Your task to perform on an android device: remove spam from my inbox in the gmail app Image 0: 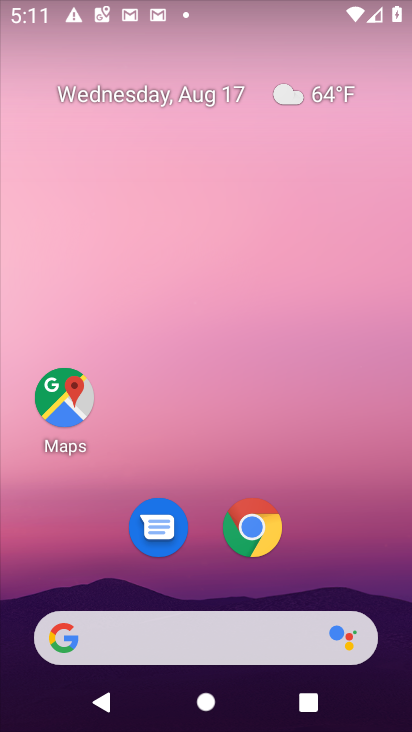
Step 0: drag from (185, 612) to (122, 154)
Your task to perform on an android device: remove spam from my inbox in the gmail app Image 1: 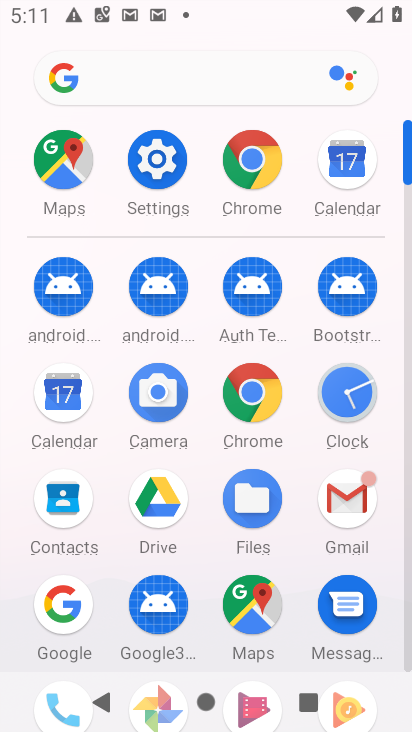
Step 1: click (339, 508)
Your task to perform on an android device: remove spam from my inbox in the gmail app Image 2: 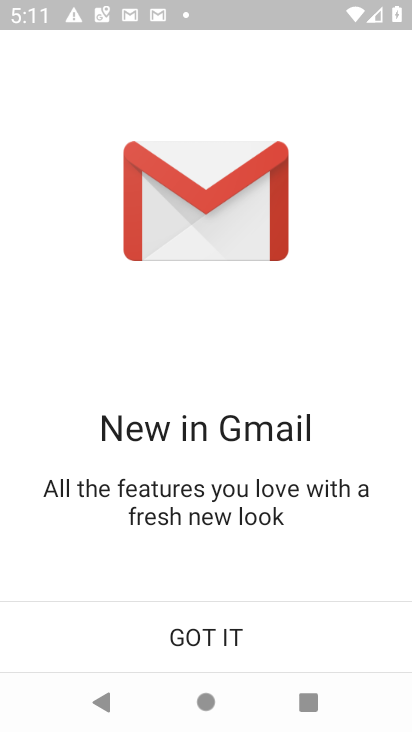
Step 2: click (201, 639)
Your task to perform on an android device: remove spam from my inbox in the gmail app Image 3: 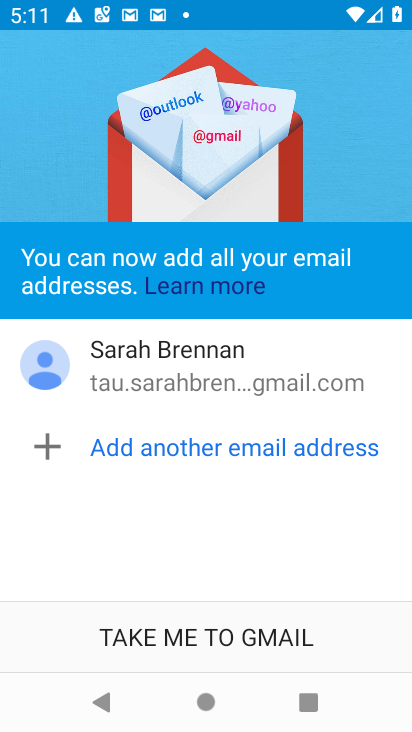
Step 3: click (205, 642)
Your task to perform on an android device: remove spam from my inbox in the gmail app Image 4: 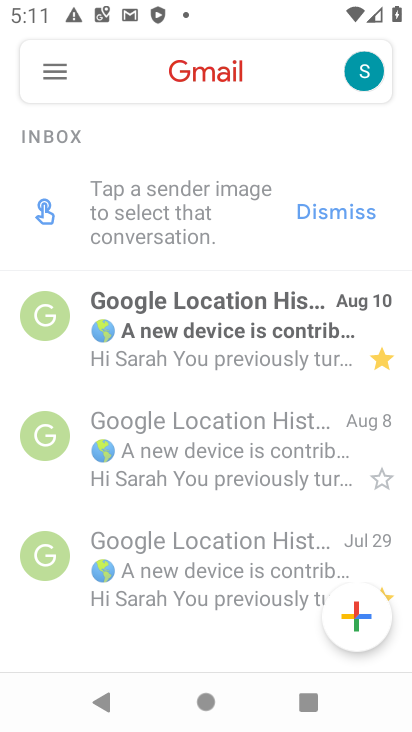
Step 4: click (50, 80)
Your task to perform on an android device: remove spam from my inbox in the gmail app Image 5: 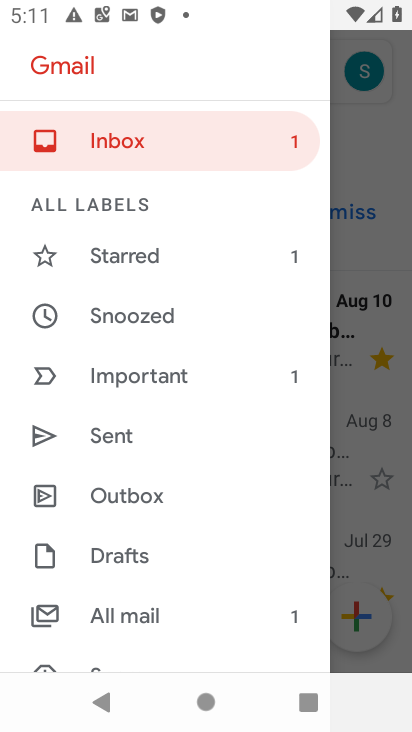
Step 5: drag from (117, 633) to (105, 308)
Your task to perform on an android device: remove spam from my inbox in the gmail app Image 6: 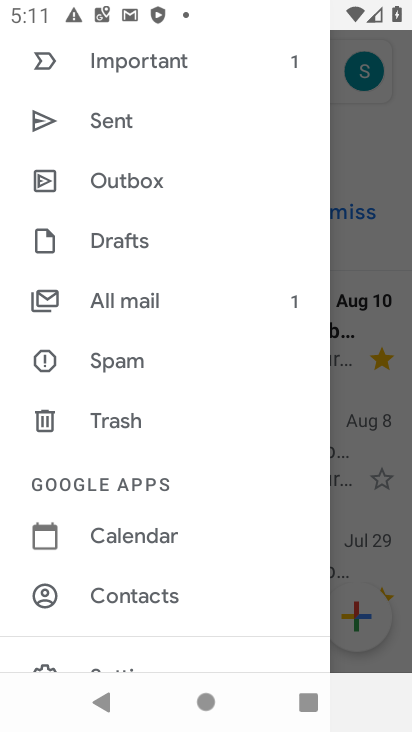
Step 6: click (119, 365)
Your task to perform on an android device: remove spam from my inbox in the gmail app Image 7: 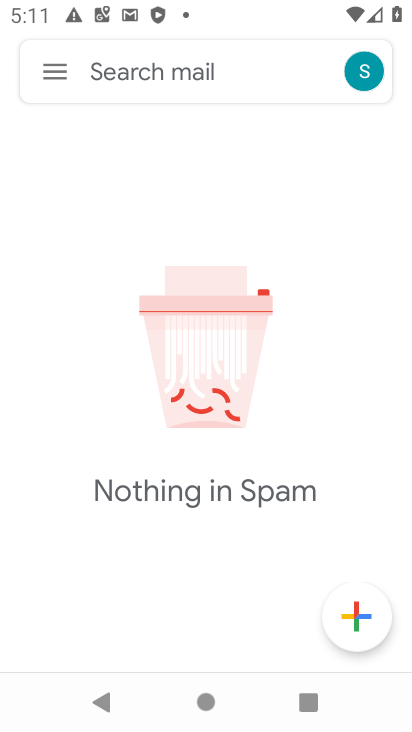
Step 7: task complete